Your task to perform on an android device: Turn off the flashlight Image 0: 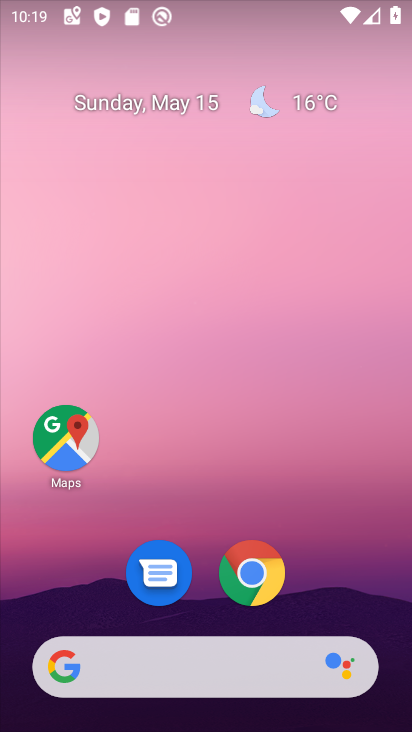
Step 0: press home button
Your task to perform on an android device: Turn off the flashlight Image 1: 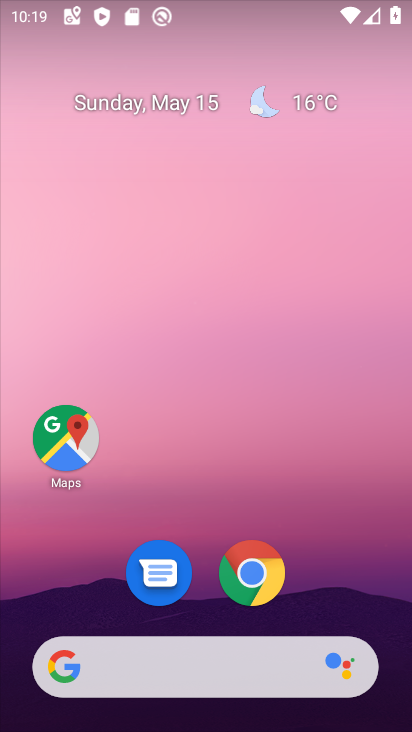
Step 1: task complete